Your task to perform on an android device: change notifications settings Image 0: 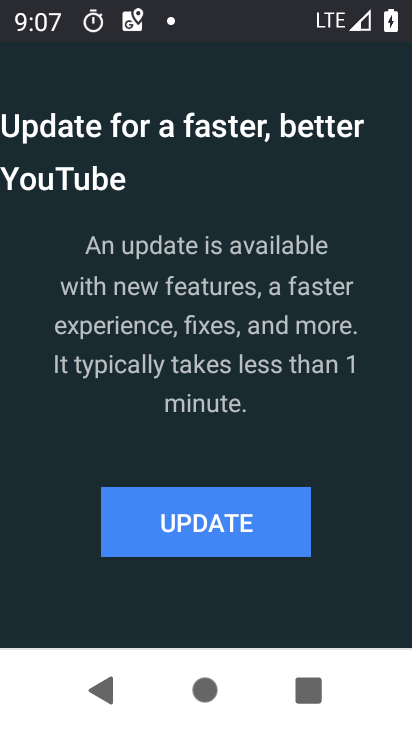
Step 0: press home button
Your task to perform on an android device: change notifications settings Image 1: 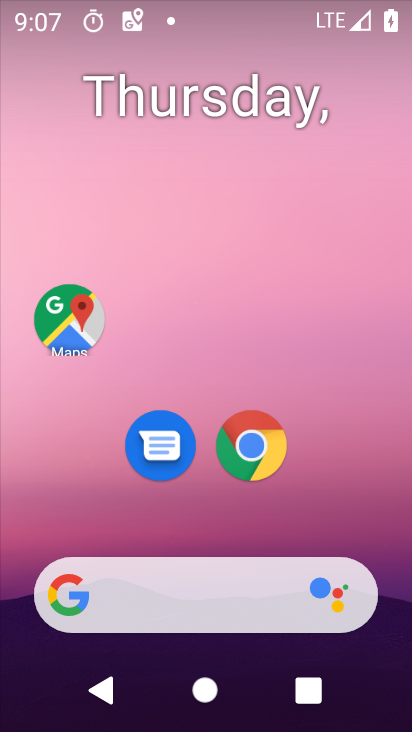
Step 1: drag from (374, 532) to (318, 8)
Your task to perform on an android device: change notifications settings Image 2: 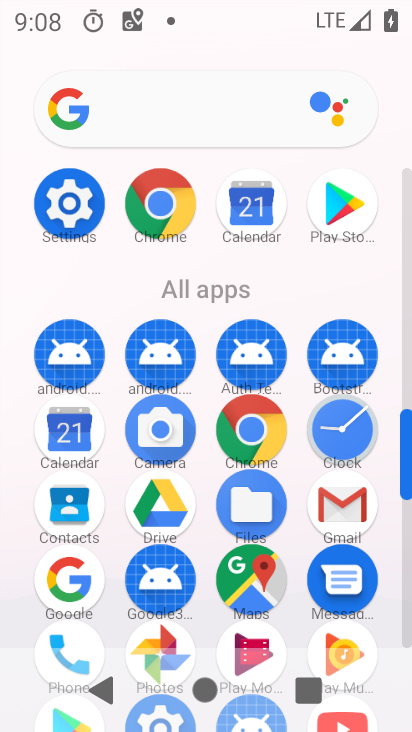
Step 2: click (66, 204)
Your task to perform on an android device: change notifications settings Image 3: 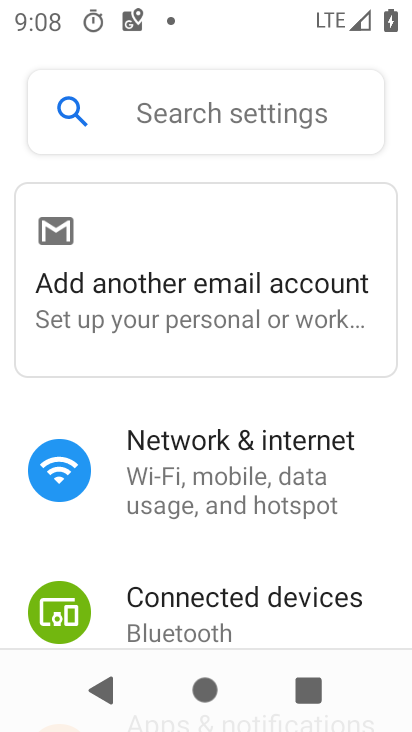
Step 3: drag from (357, 621) to (317, 89)
Your task to perform on an android device: change notifications settings Image 4: 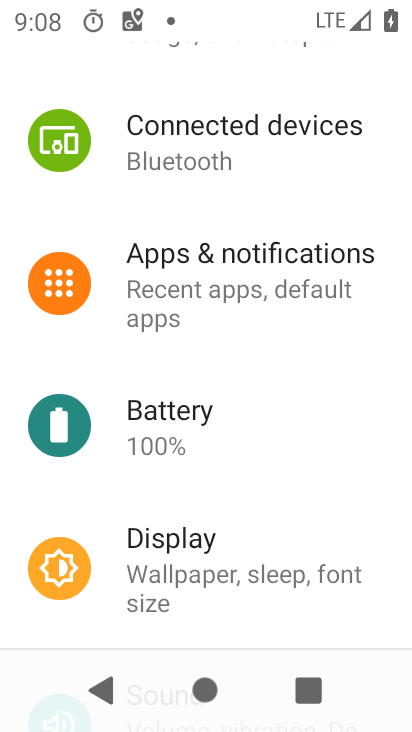
Step 4: click (231, 279)
Your task to perform on an android device: change notifications settings Image 5: 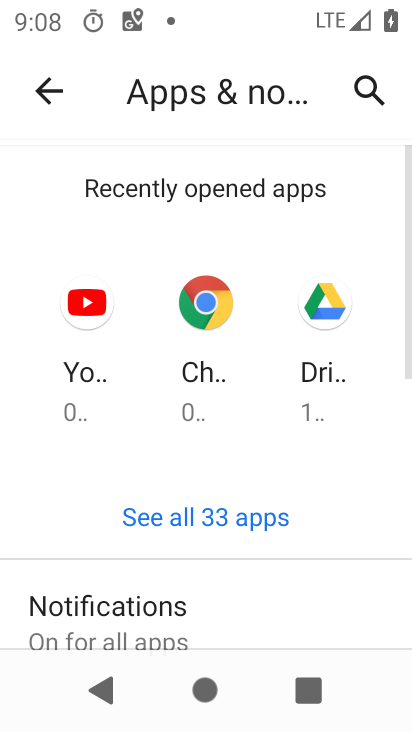
Step 5: drag from (248, 529) to (210, 124)
Your task to perform on an android device: change notifications settings Image 6: 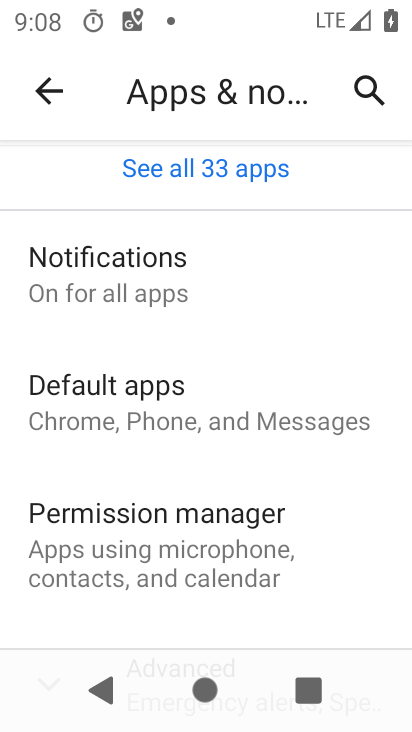
Step 6: click (140, 277)
Your task to perform on an android device: change notifications settings Image 7: 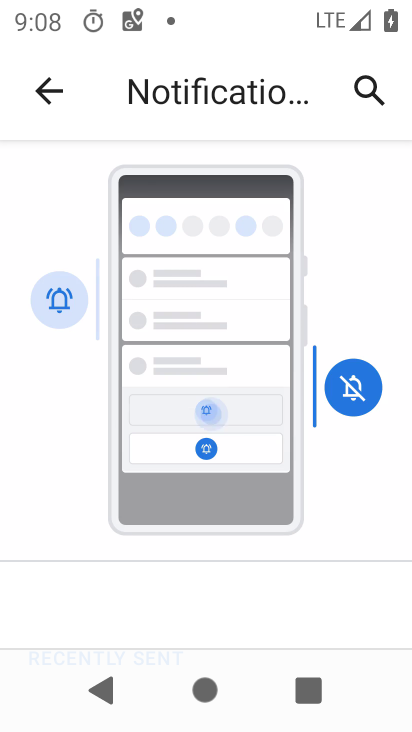
Step 7: drag from (287, 521) to (253, 182)
Your task to perform on an android device: change notifications settings Image 8: 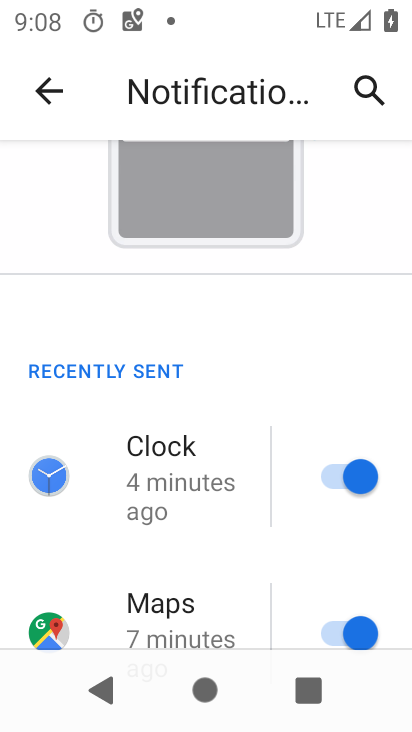
Step 8: drag from (226, 440) to (220, 116)
Your task to perform on an android device: change notifications settings Image 9: 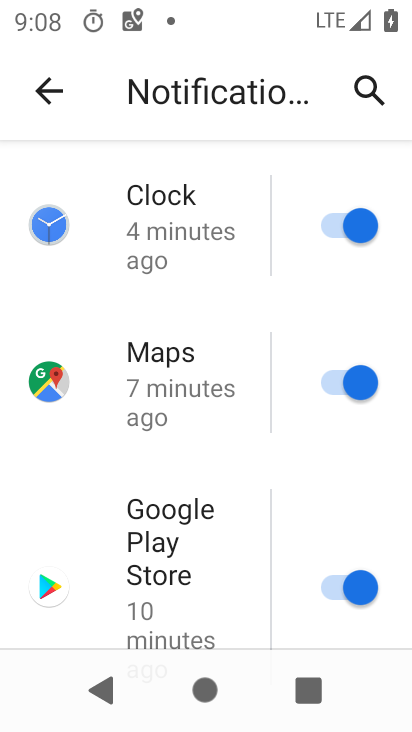
Step 9: drag from (213, 403) to (209, 111)
Your task to perform on an android device: change notifications settings Image 10: 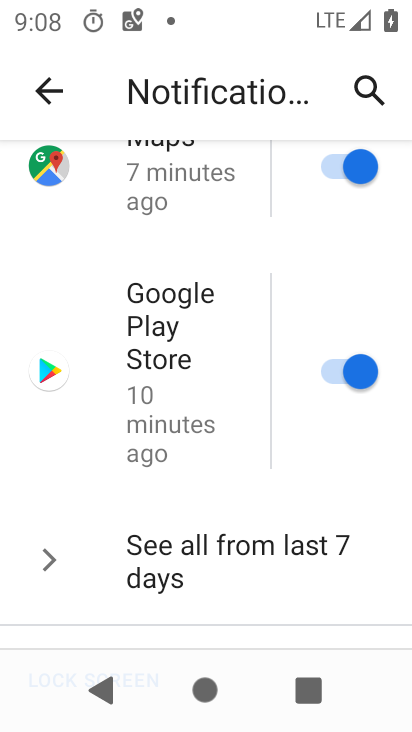
Step 10: drag from (204, 474) to (193, 259)
Your task to perform on an android device: change notifications settings Image 11: 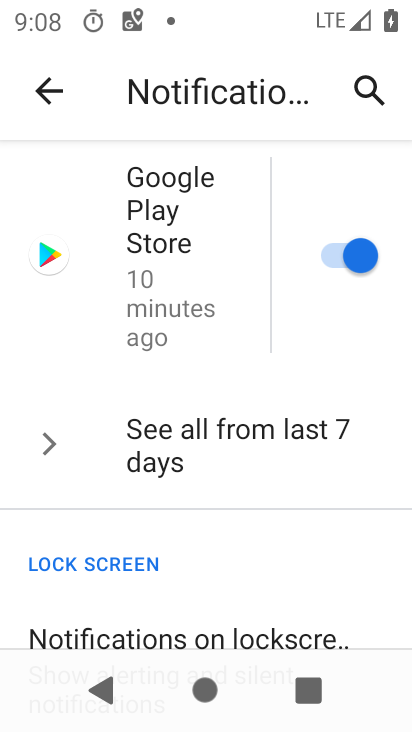
Step 11: click (207, 439)
Your task to perform on an android device: change notifications settings Image 12: 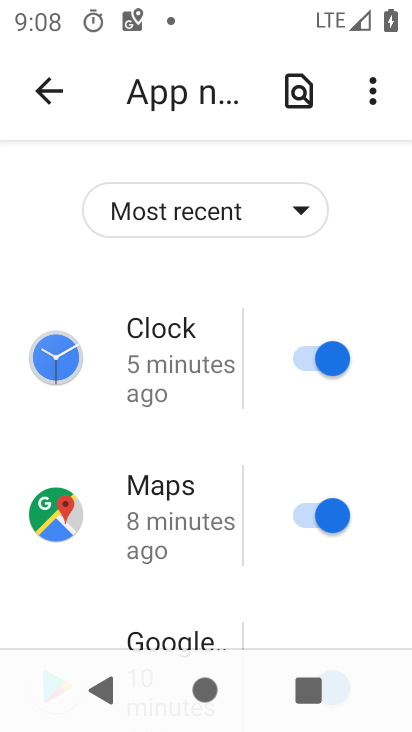
Step 12: click (291, 201)
Your task to perform on an android device: change notifications settings Image 13: 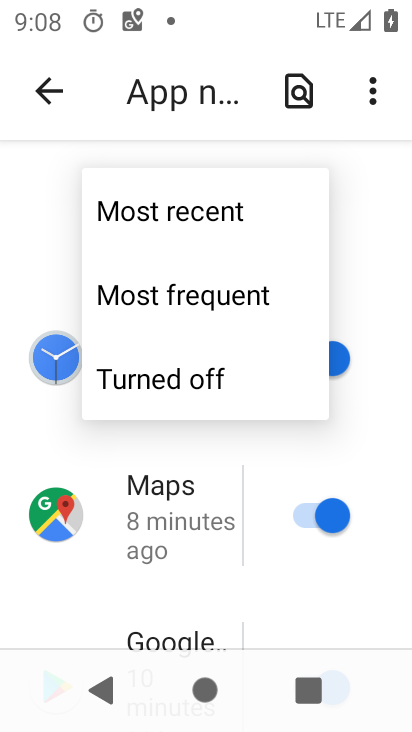
Step 13: click (202, 300)
Your task to perform on an android device: change notifications settings Image 14: 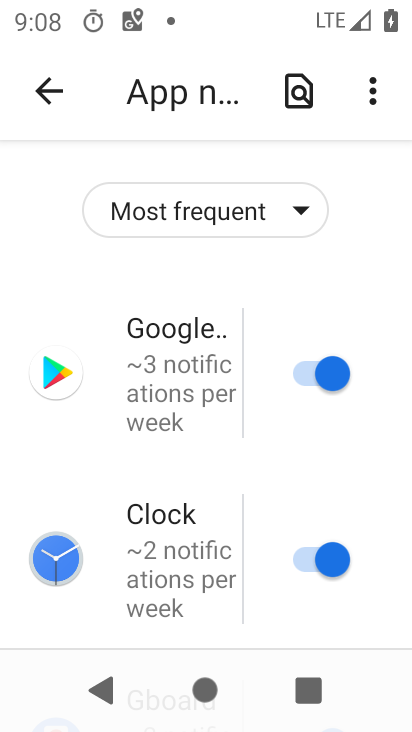
Step 14: task complete